Your task to perform on an android device: See recent photos Image 0: 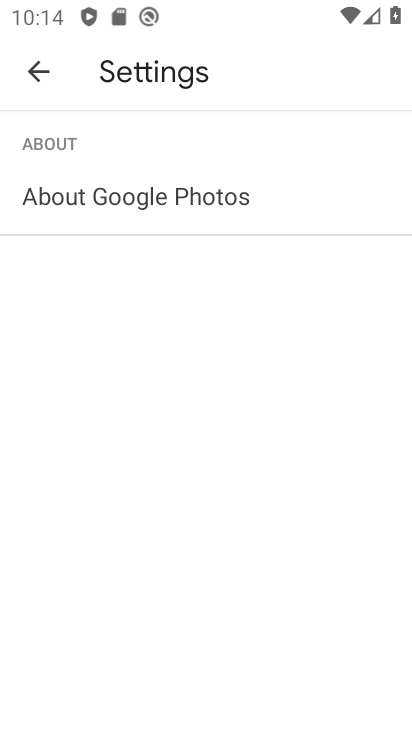
Step 0: press home button
Your task to perform on an android device: See recent photos Image 1: 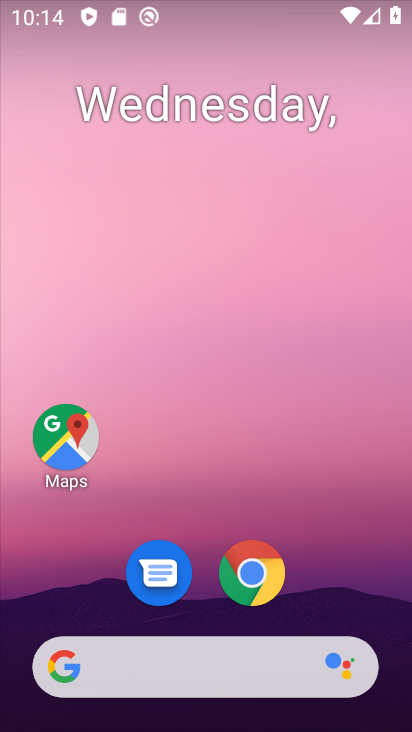
Step 1: drag from (384, 617) to (371, 263)
Your task to perform on an android device: See recent photos Image 2: 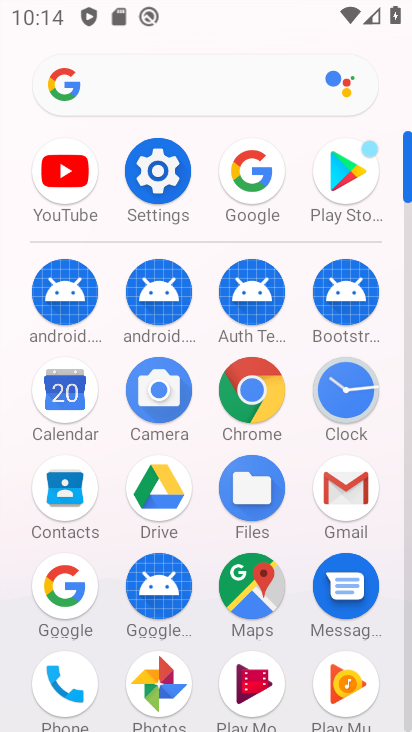
Step 2: click (145, 674)
Your task to perform on an android device: See recent photos Image 3: 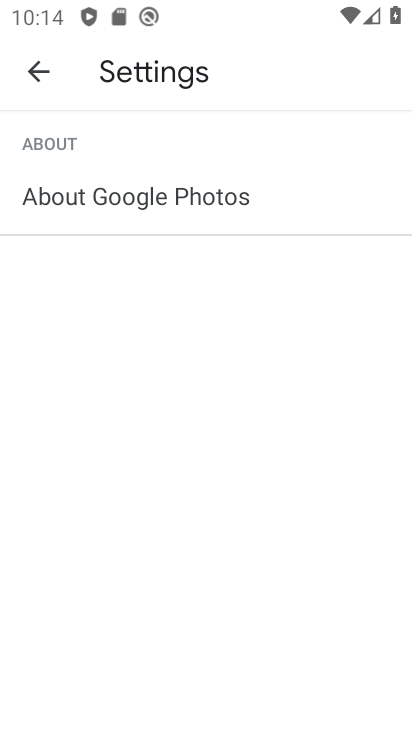
Step 3: click (25, 75)
Your task to perform on an android device: See recent photos Image 4: 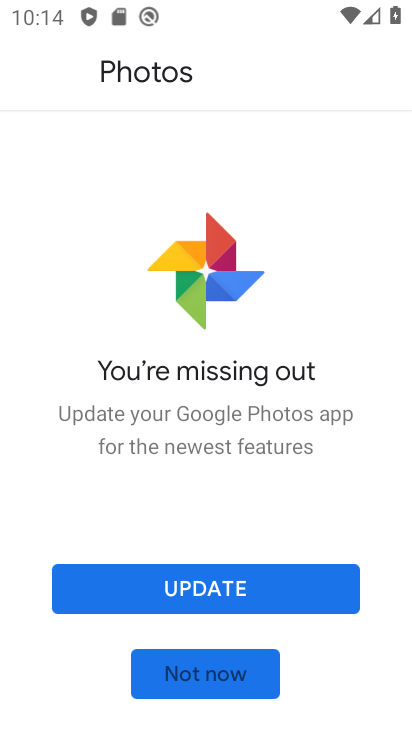
Step 4: click (257, 595)
Your task to perform on an android device: See recent photos Image 5: 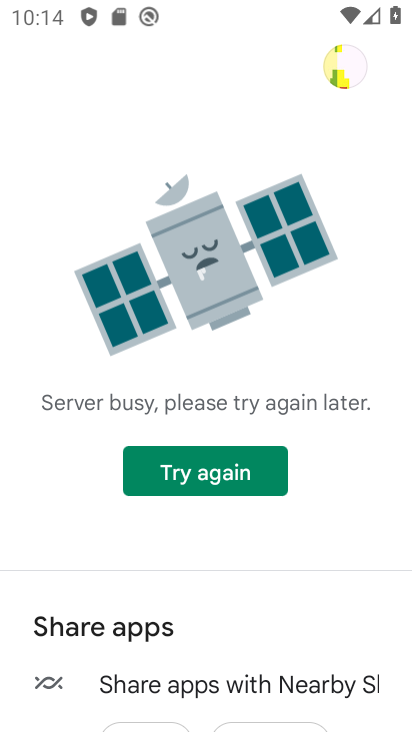
Step 5: click (223, 452)
Your task to perform on an android device: See recent photos Image 6: 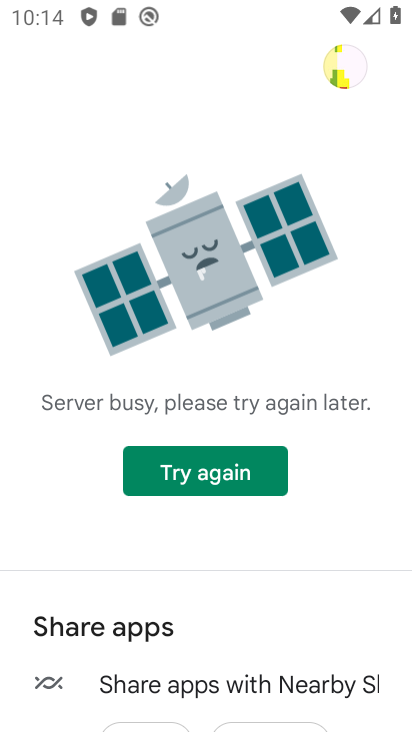
Step 6: click (219, 488)
Your task to perform on an android device: See recent photos Image 7: 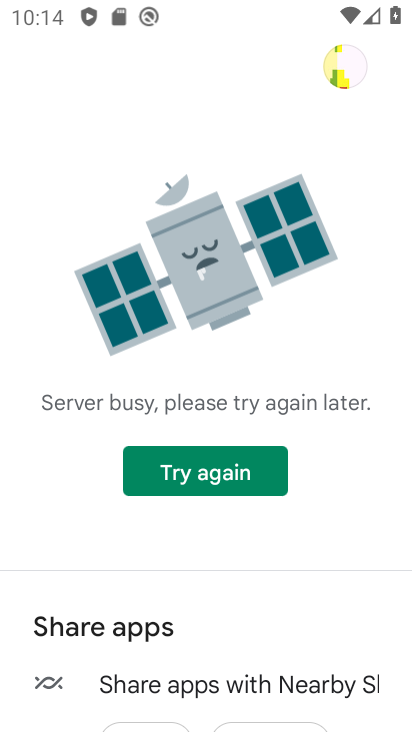
Step 7: click (220, 467)
Your task to perform on an android device: See recent photos Image 8: 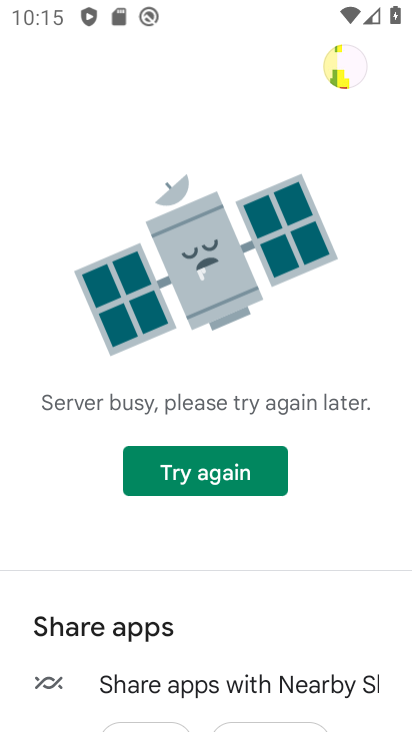
Step 8: task complete